Your task to perform on an android device: open app "Instagram" Image 0: 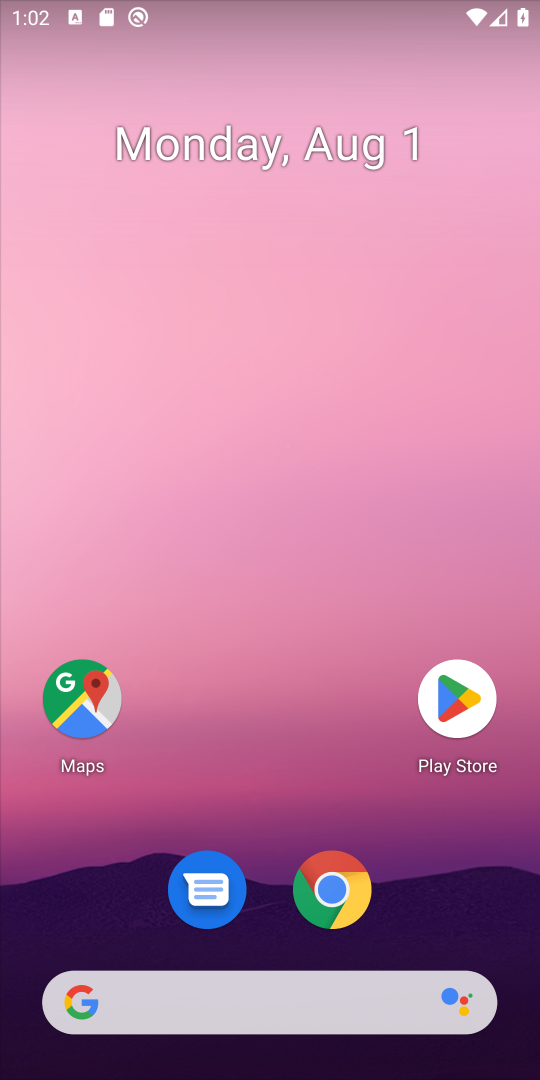
Step 0: click (471, 704)
Your task to perform on an android device: open app "Instagram" Image 1: 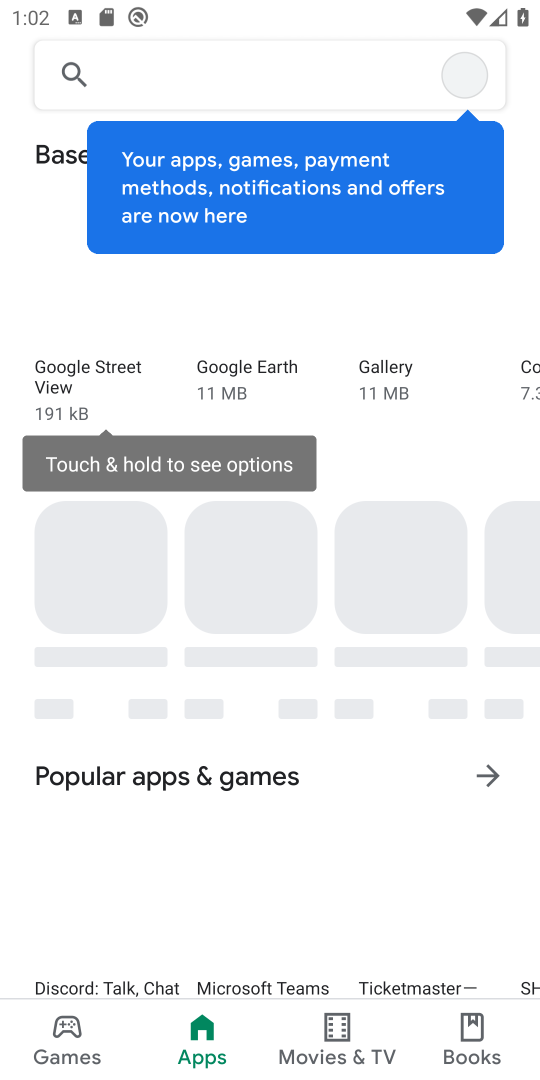
Step 1: click (321, 74)
Your task to perform on an android device: open app "Instagram" Image 2: 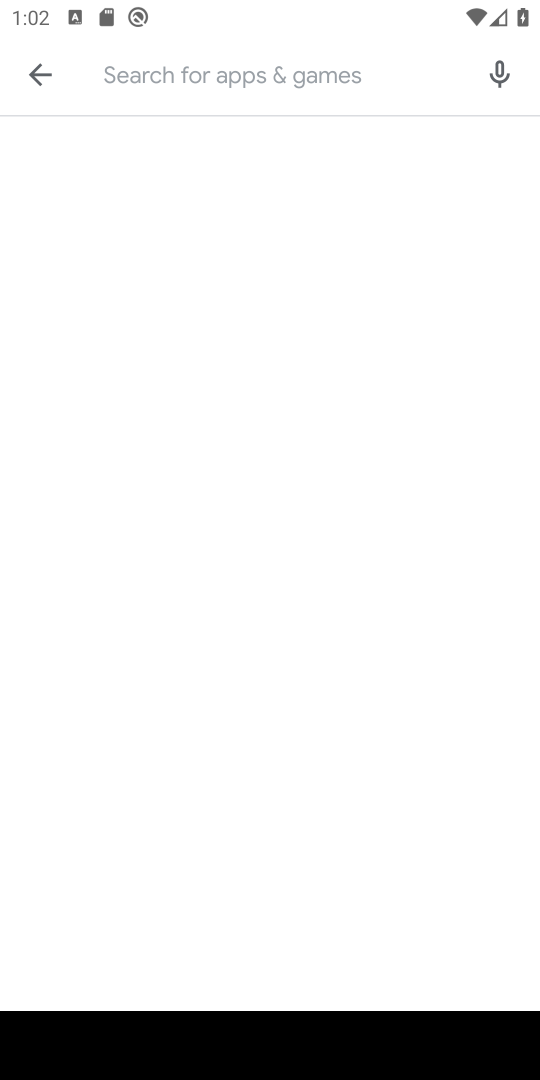
Step 2: type "Instagram"
Your task to perform on an android device: open app "Instagram" Image 3: 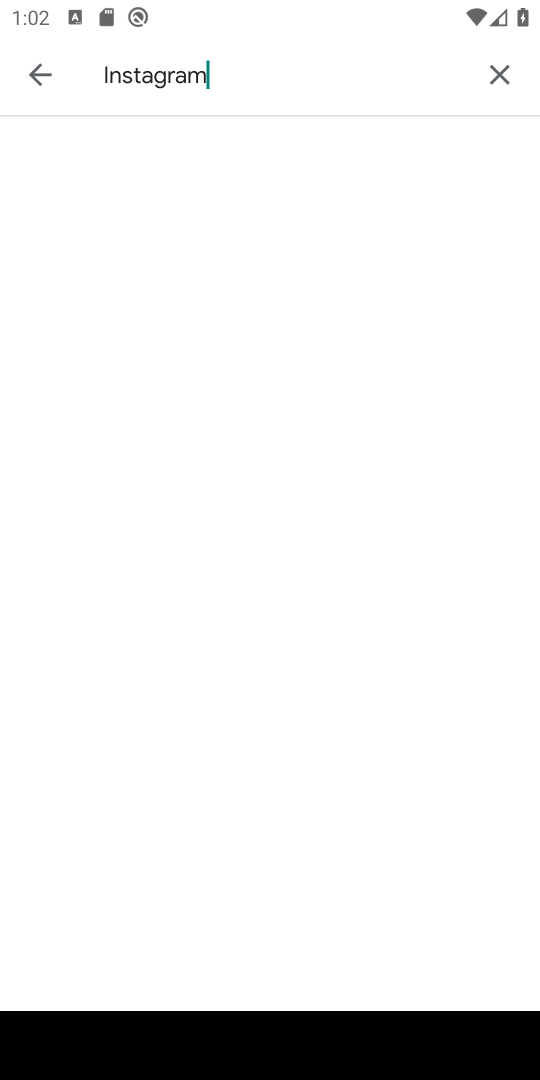
Step 3: type ""
Your task to perform on an android device: open app "Instagram" Image 4: 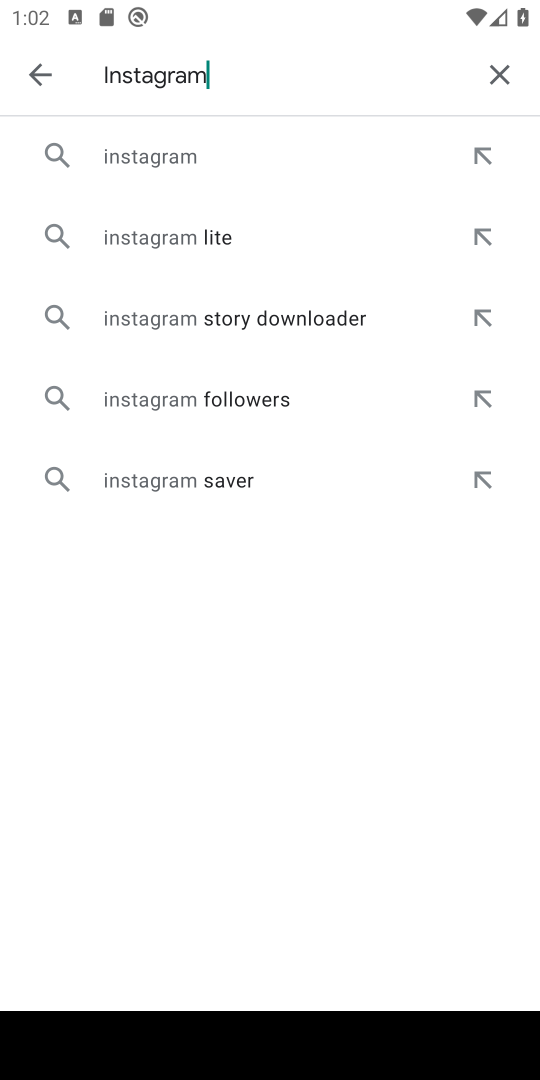
Step 4: click (276, 144)
Your task to perform on an android device: open app "Instagram" Image 5: 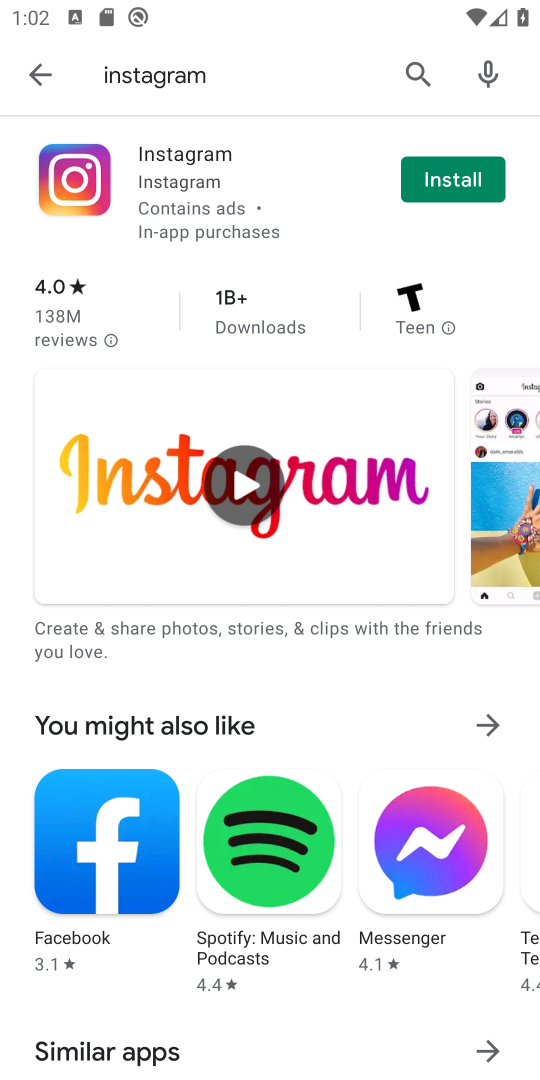
Step 5: task complete